Your task to perform on an android device: Go to CNN.com Image 0: 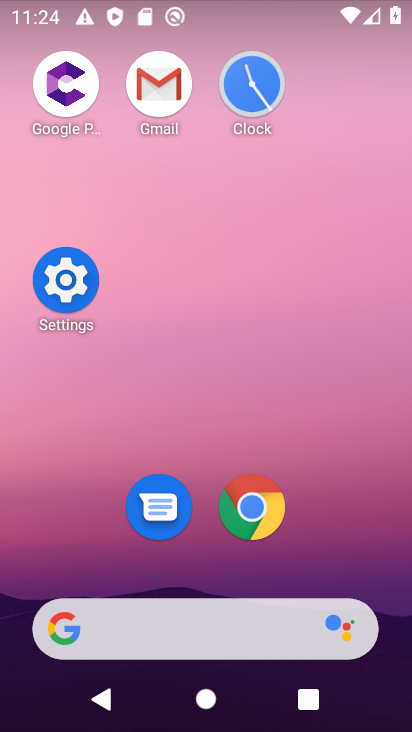
Step 0: click (274, 527)
Your task to perform on an android device: Go to CNN.com Image 1: 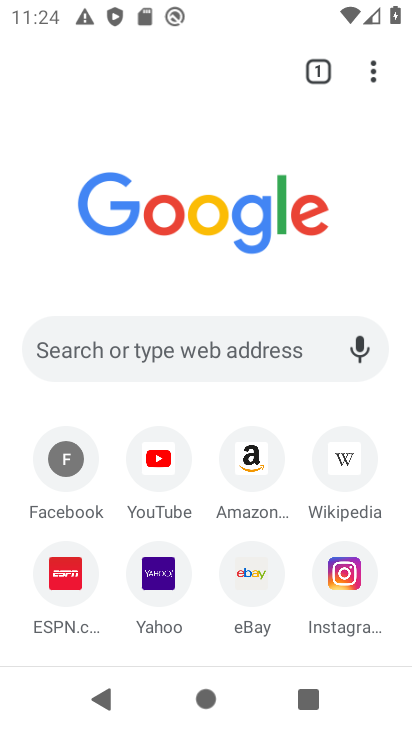
Step 1: click (151, 330)
Your task to perform on an android device: Go to CNN.com Image 2: 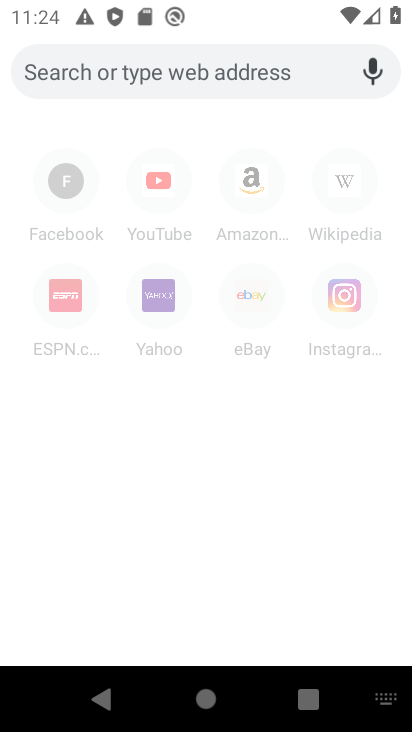
Step 2: type "cnn"
Your task to perform on an android device: Go to CNN.com Image 3: 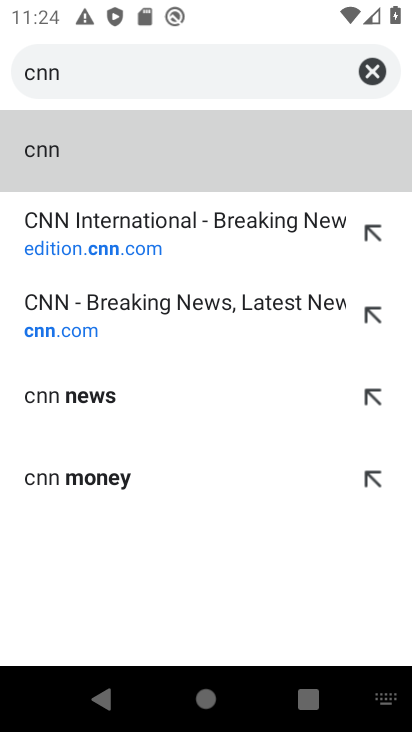
Step 3: click (137, 254)
Your task to perform on an android device: Go to CNN.com Image 4: 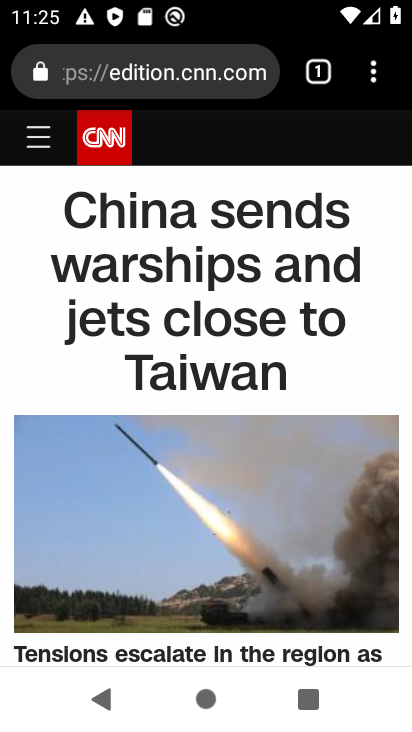
Step 4: task complete